Your task to perform on an android device: open the mobile data screen to see how much data has been used Image 0: 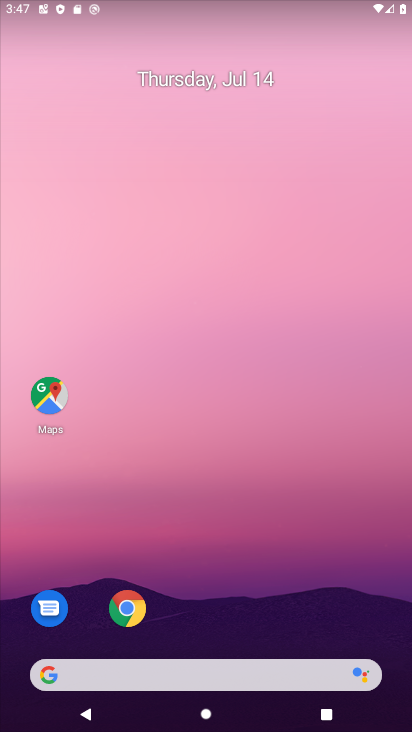
Step 0: drag from (66, 461) to (258, 31)
Your task to perform on an android device: open the mobile data screen to see how much data has been used Image 1: 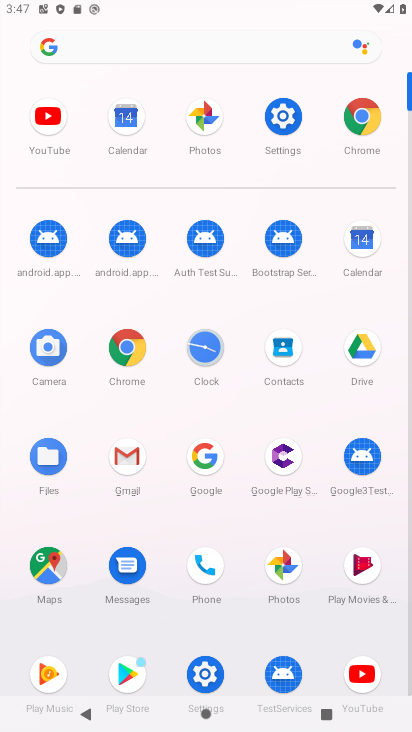
Step 1: click (275, 115)
Your task to perform on an android device: open the mobile data screen to see how much data has been used Image 2: 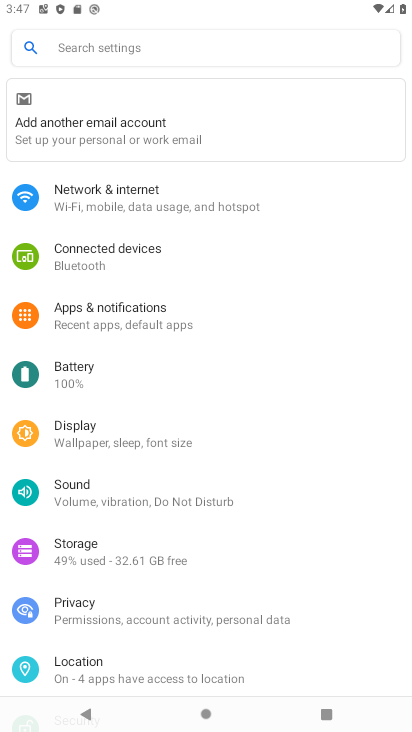
Step 2: click (139, 191)
Your task to perform on an android device: open the mobile data screen to see how much data has been used Image 3: 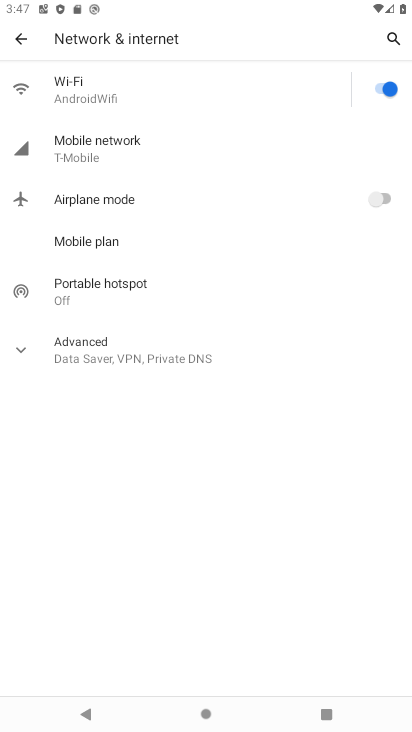
Step 3: click (135, 149)
Your task to perform on an android device: open the mobile data screen to see how much data has been used Image 4: 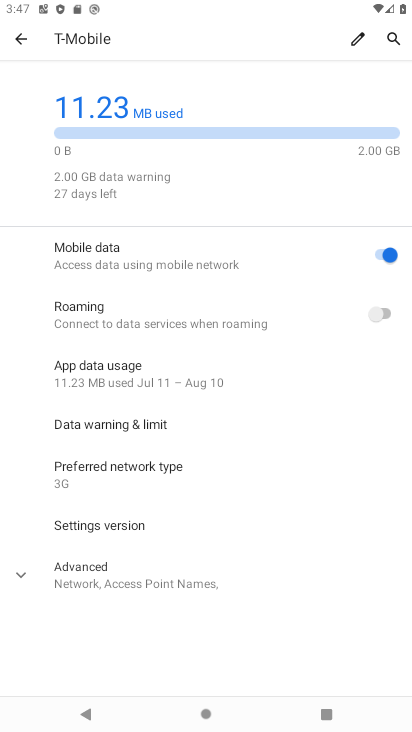
Step 4: task complete